Your task to perform on an android device: open a bookmark in the chrome app Image 0: 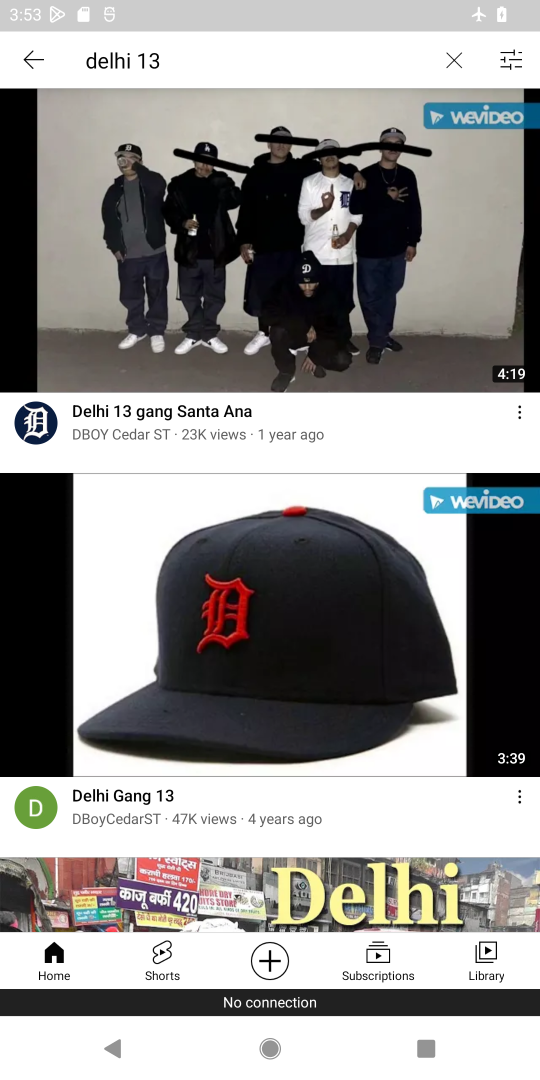
Step 0: press back button
Your task to perform on an android device: open a bookmark in the chrome app Image 1: 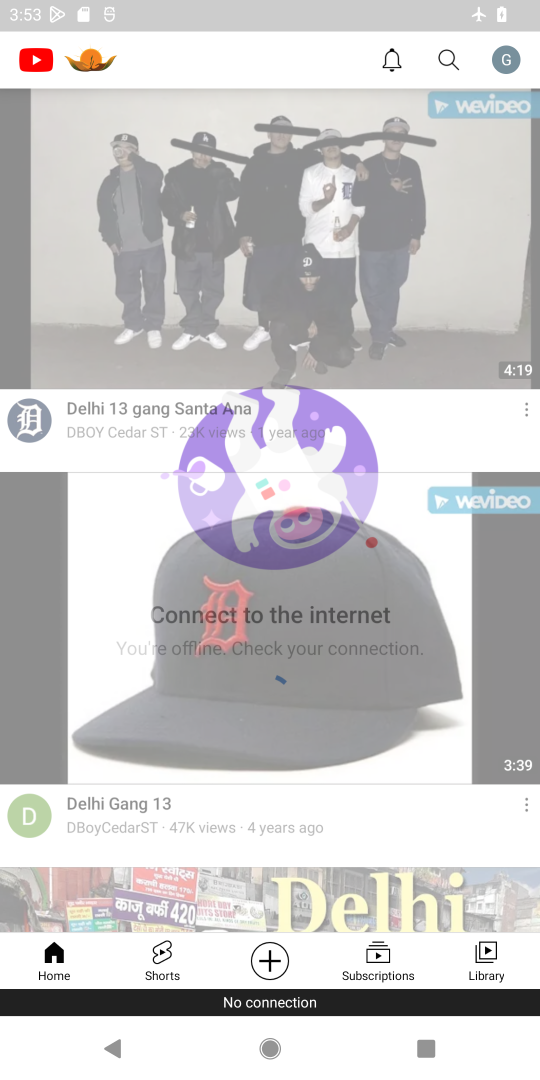
Step 1: press home button
Your task to perform on an android device: open a bookmark in the chrome app Image 2: 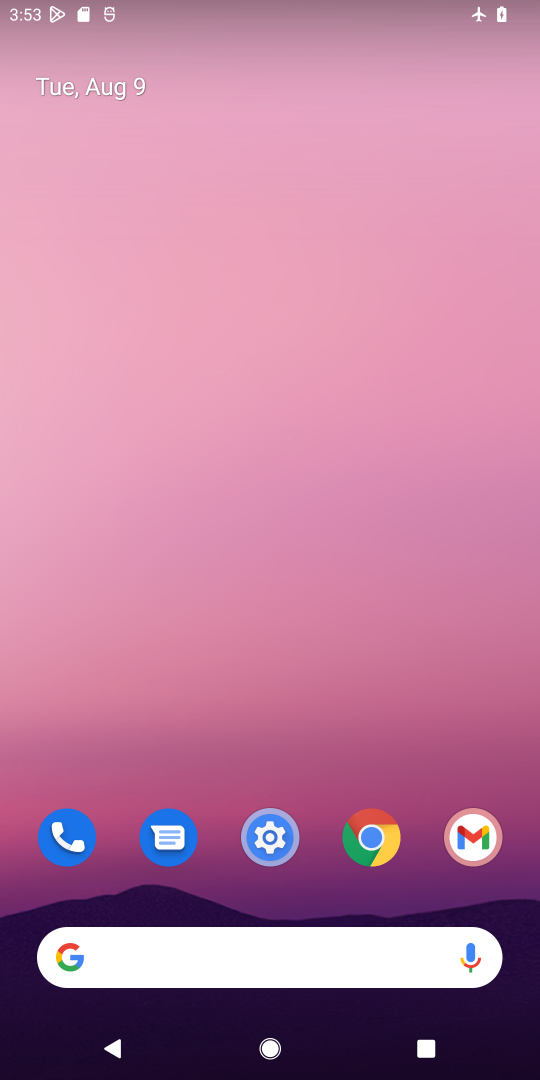
Step 2: drag from (335, 934) to (281, 478)
Your task to perform on an android device: open a bookmark in the chrome app Image 3: 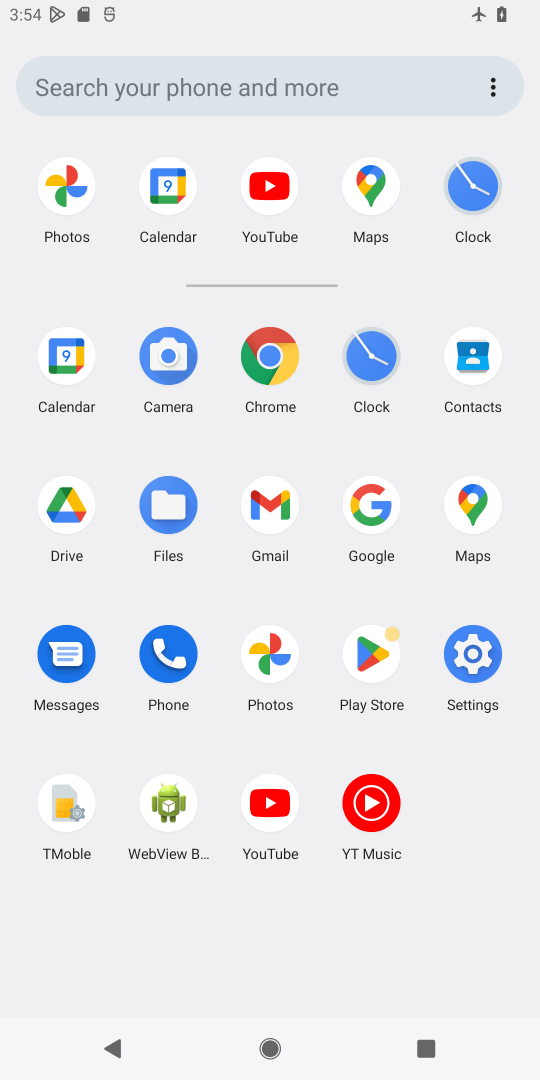
Step 3: click (264, 348)
Your task to perform on an android device: open a bookmark in the chrome app Image 4: 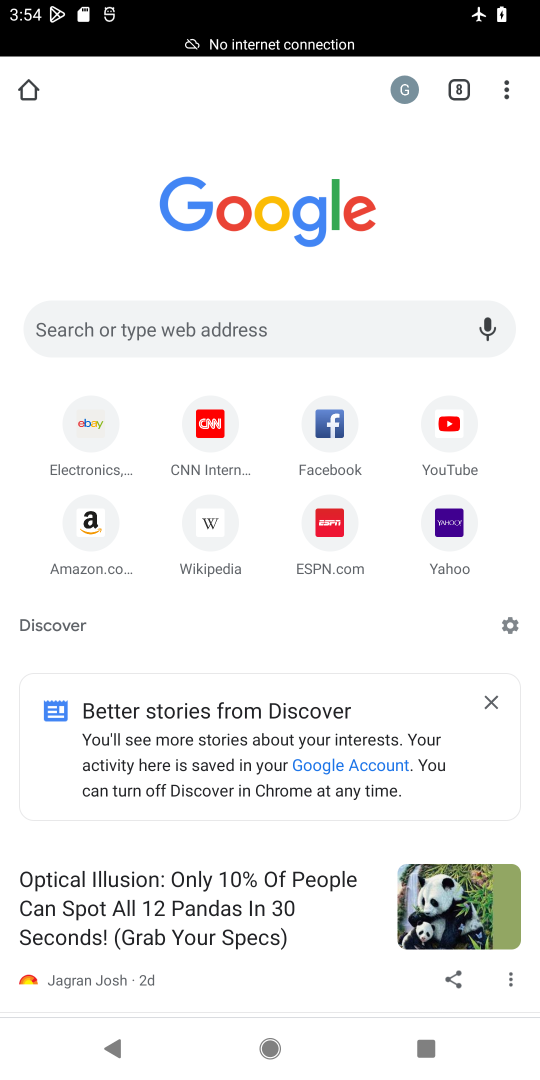
Step 4: click (504, 98)
Your task to perform on an android device: open a bookmark in the chrome app Image 5: 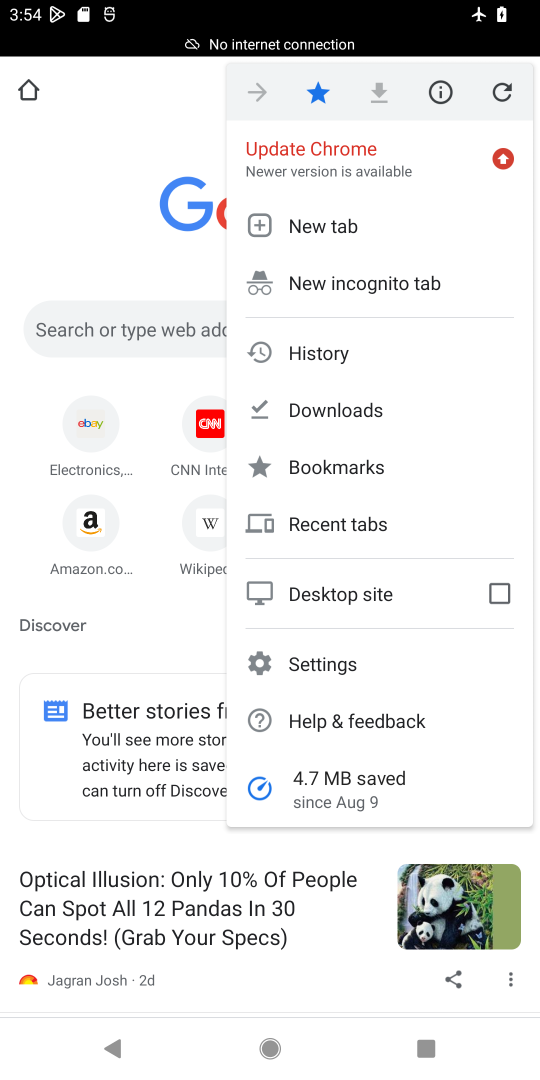
Step 5: click (350, 471)
Your task to perform on an android device: open a bookmark in the chrome app Image 6: 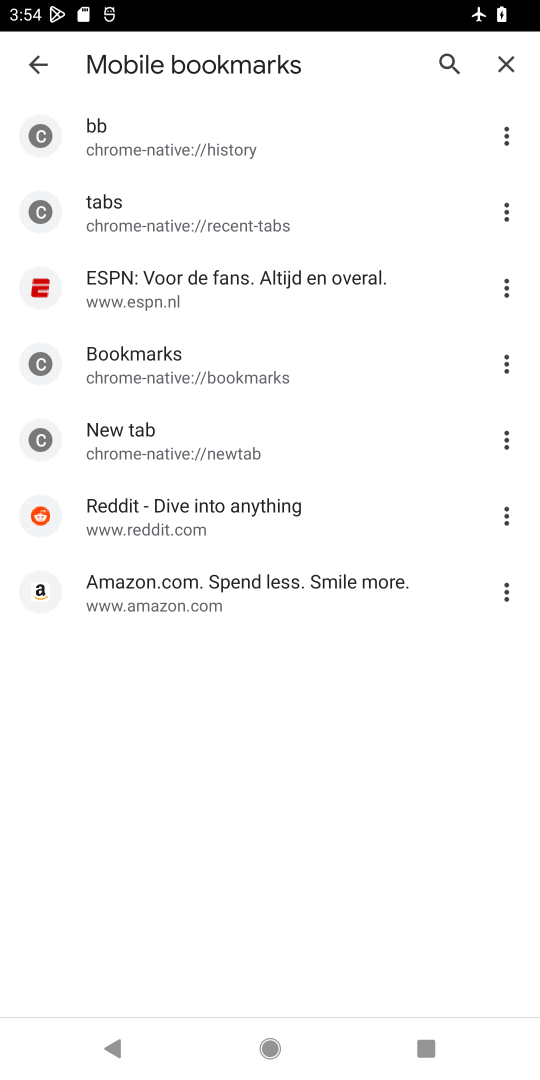
Step 6: task complete